Your task to perform on an android device: turn on the 24-hour format for clock Image 0: 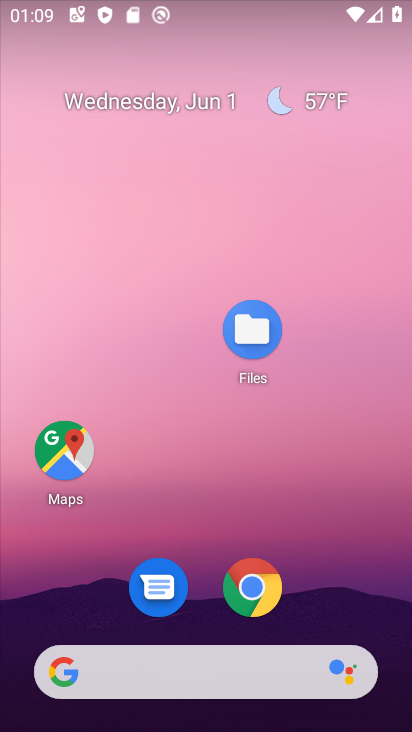
Step 0: press home button
Your task to perform on an android device: turn on the 24-hour format for clock Image 1: 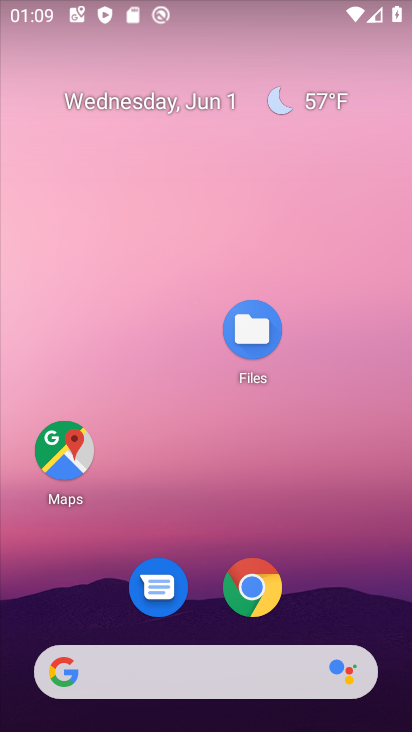
Step 1: drag from (346, 567) to (322, 132)
Your task to perform on an android device: turn on the 24-hour format for clock Image 2: 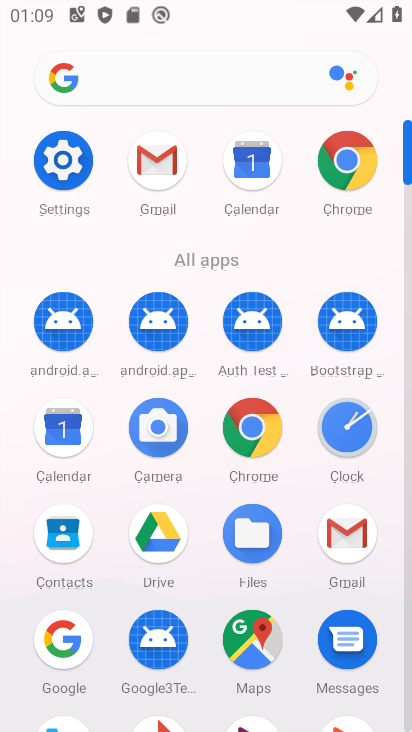
Step 2: click (335, 430)
Your task to perform on an android device: turn on the 24-hour format for clock Image 3: 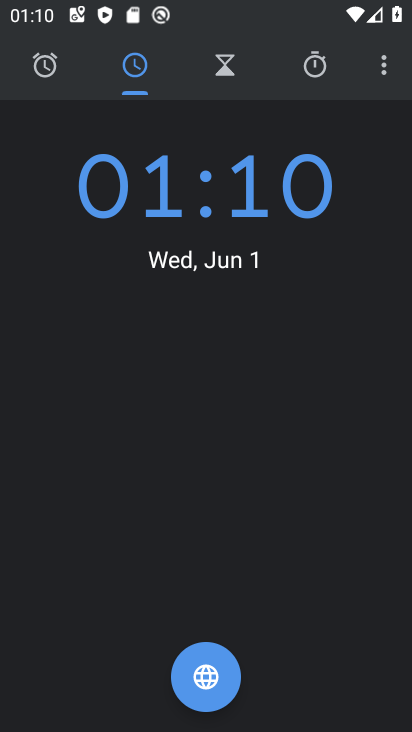
Step 3: click (391, 72)
Your task to perform on an android device: turn on the 24-hour format for clock Image 4: 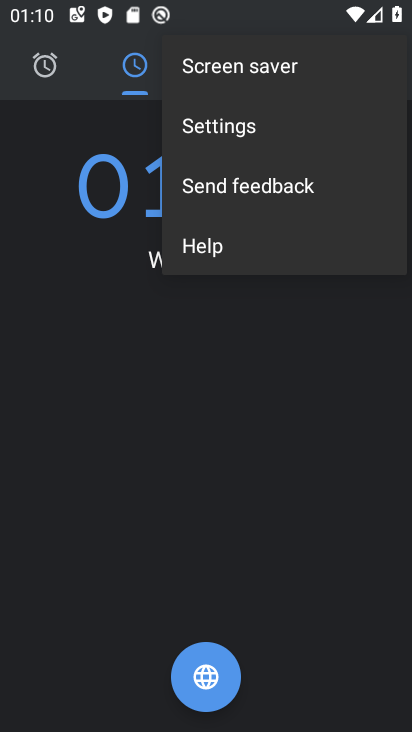
Step 4: drag from (391, 72) to (245, 126)
Your task to perform on an android device: turn on the 24-hour format for clock Image 5: 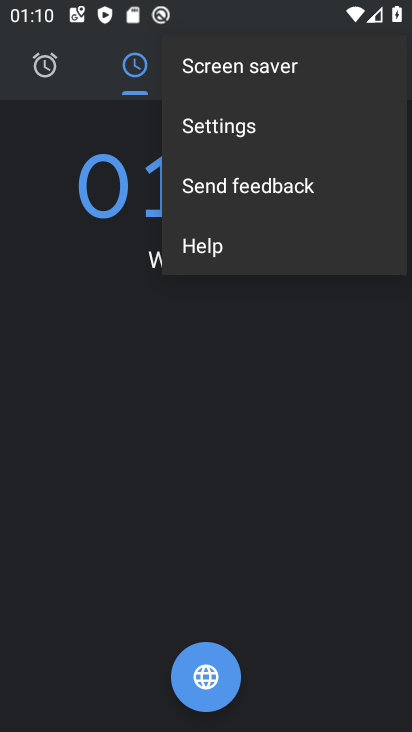
Step 5: click (245, 126)
Your task to perform on an android device: turn on the 24-hour format for clock Image 6: 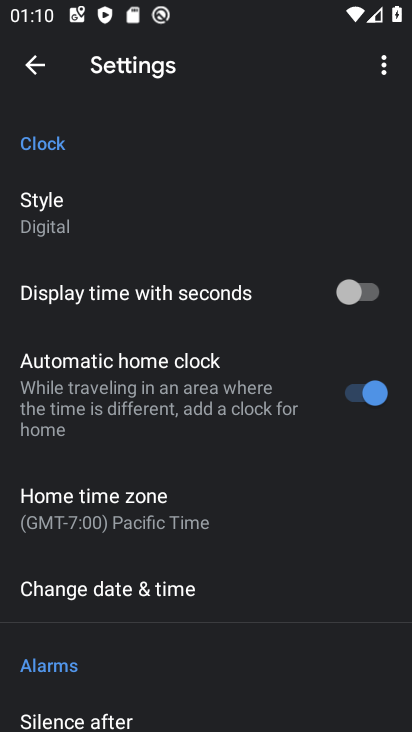
Step 6: click (129, 592)
Your task to perform on an android device: turn on the 24-hour format for clock Image 7: 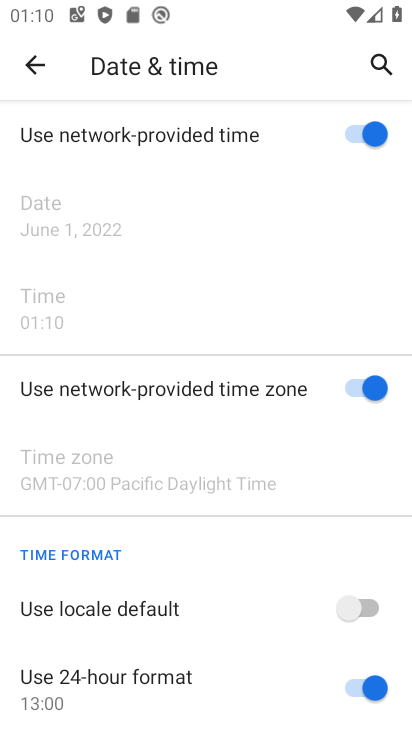
Step 7: task complete